Your task to perform on an android device: turn smart compose on in the gmail app Image 0: 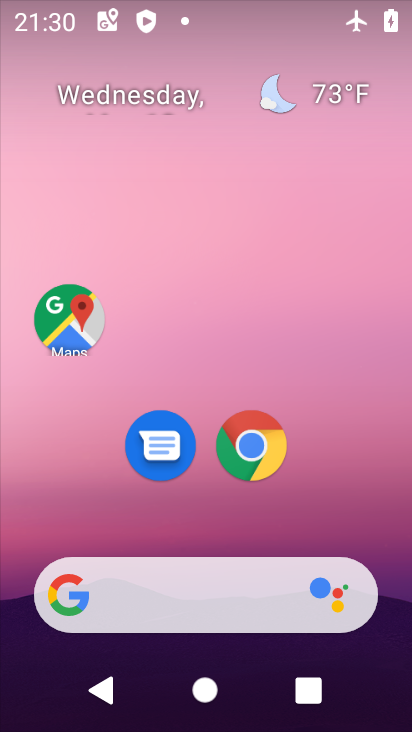
Step 0: drag from (314, 521) to (305, 274)
Your task to perform on an android device: turn smart compose on in the gmail app Image 1: 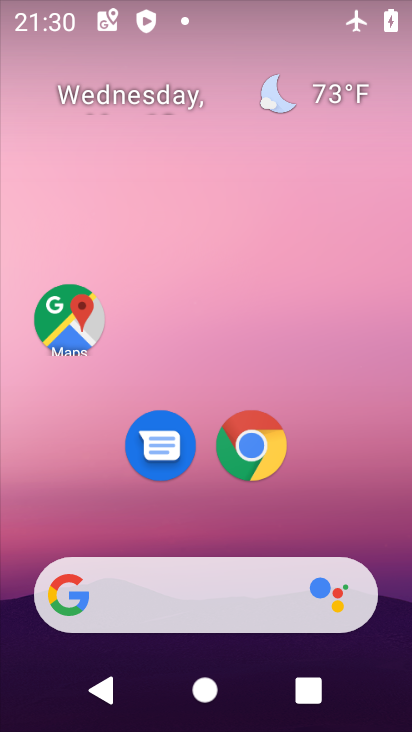
Step 1: drag from (334, 451) to (315, 184)
Your task to perform on an android device: turn smart compose on in the gmail app Image 2: 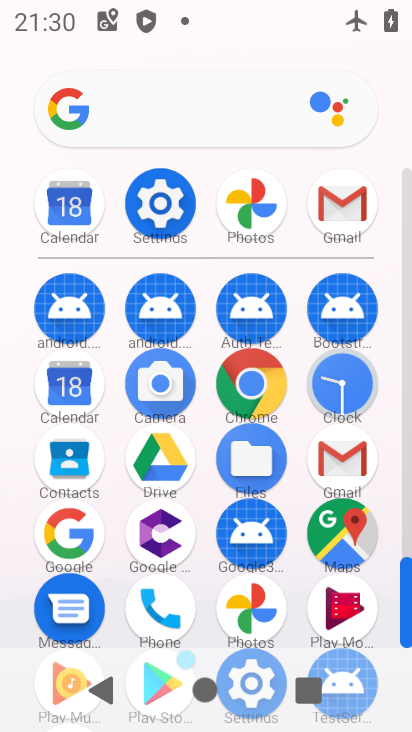
Step 2: click (331, 456)
Your task to perform on an android device: turn smart compose on in the gmail app Image 3: 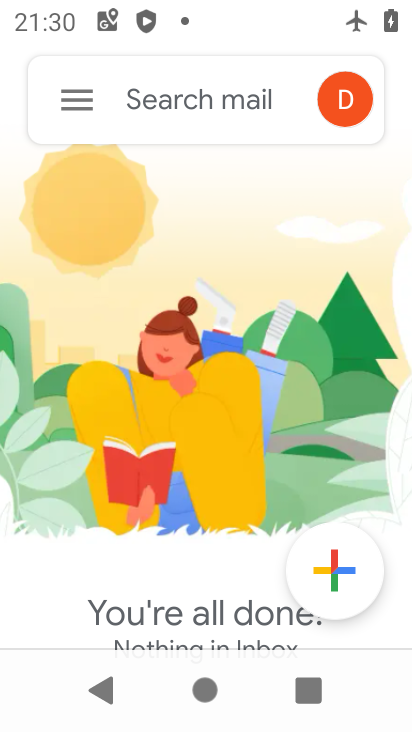
Step 3: click (63, 96)
Your task to perform on an android device: turn smart compose on in the gmail app Image 4: 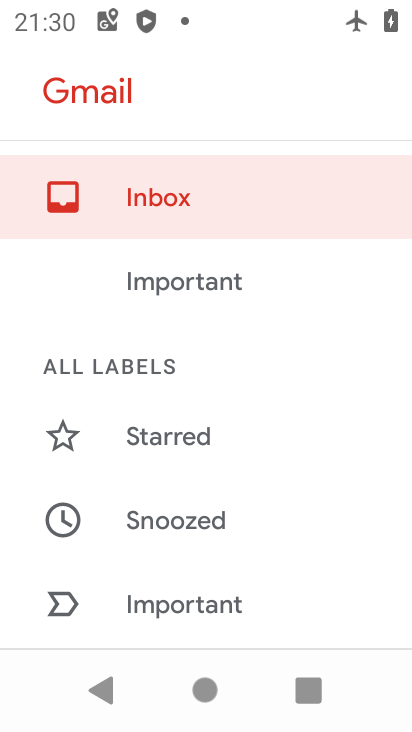
Step 4: drag from (207, 579) to (264, 188)
Your task to perform on an android device: turn smart compose on in the gmail app Image 5: 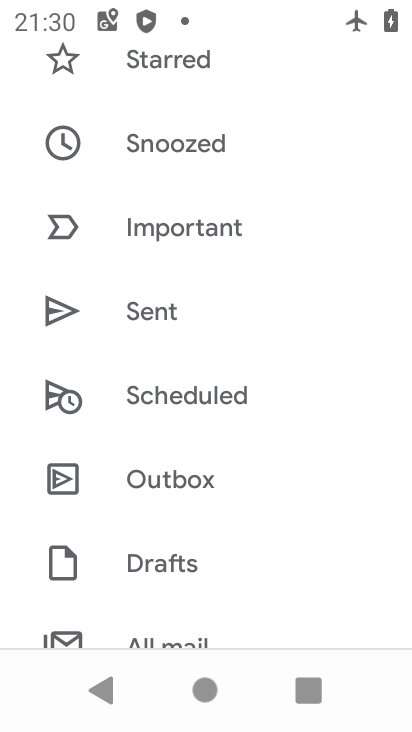
Step 5: drag from (231, 551) to (265, 262)
Your task to perform on an android device: turn smart compose on in the gmail app Image 6: 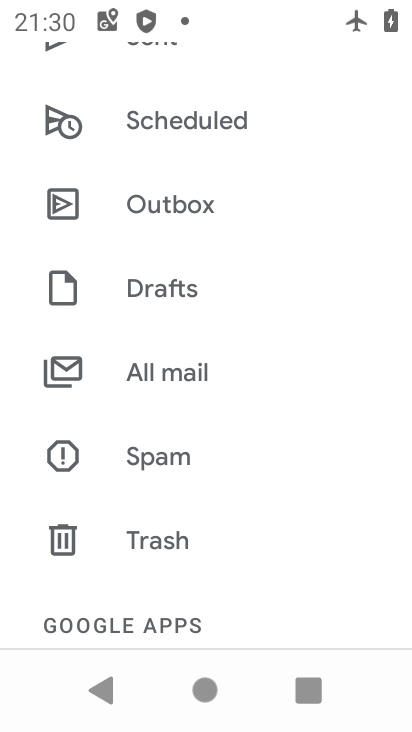
Step 6: drag from (178, 542) to (236, 358)
Your task to perform on an android device: turn smart compose on in the gmail app Image 7: 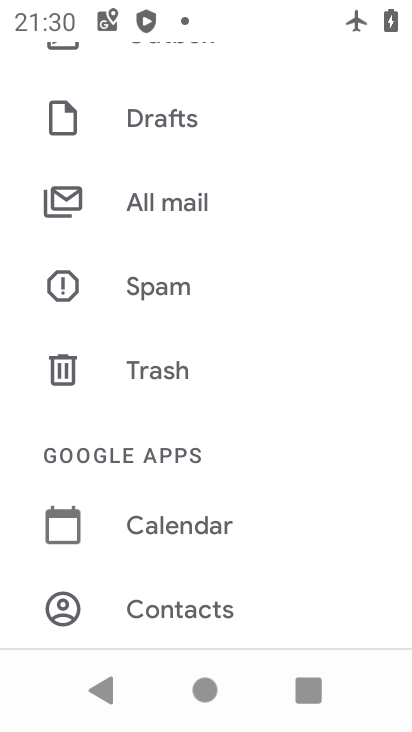
Step 7: drag from (179, 571) to (280, 268)
Your task to perform on an android device: turn smart compose on in the gmail app Image 8: 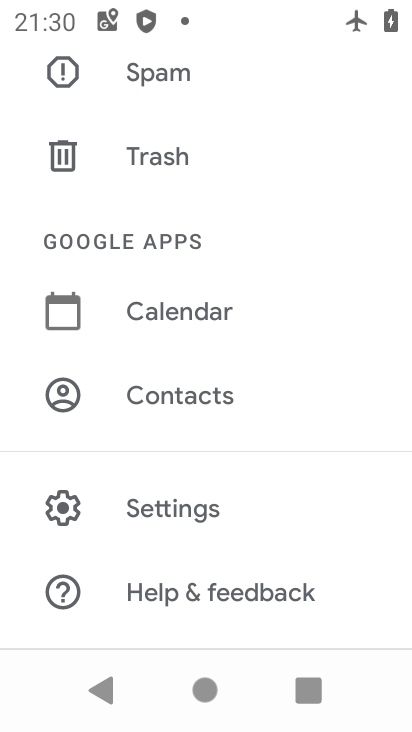
Step 8: click (182, 486)
Your task to perform on an android device: turn smart compose on in the gmail app Image 9: 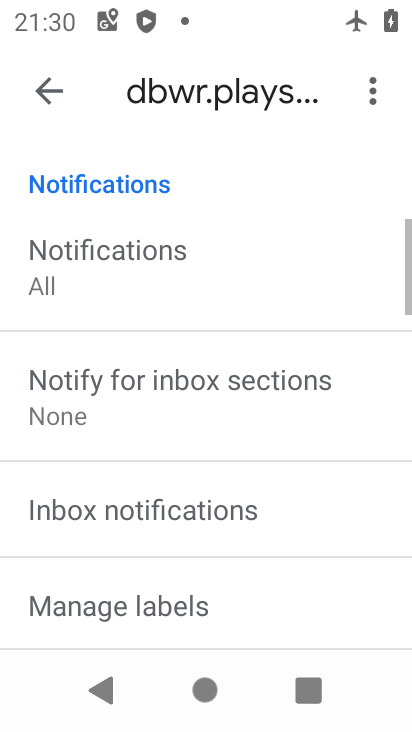
Step 9: task complete